Your task to perform on an android device: delete a single message in the gmail app Image 0: 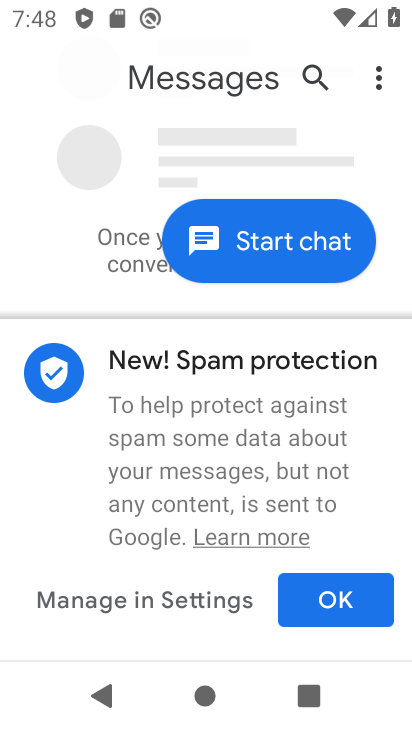
Step 0: press home button
Your task to perform on an android device: delete a single message in the gmail app Image 1: 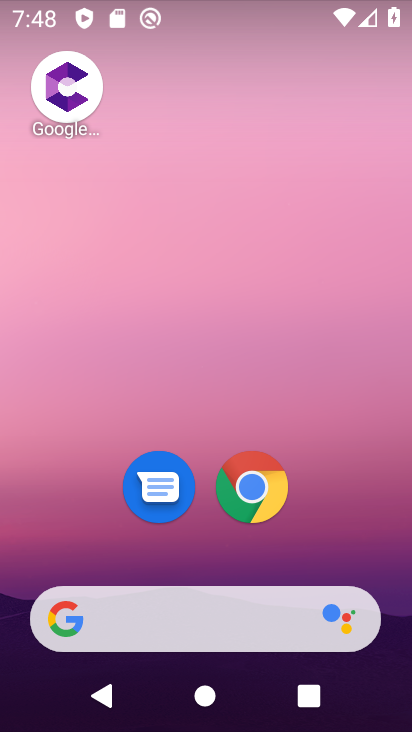
Step 1: drag from (359, 500) to (385, 106)
Your task to perform on an android device: delete a single message in the gmail app Image 2: 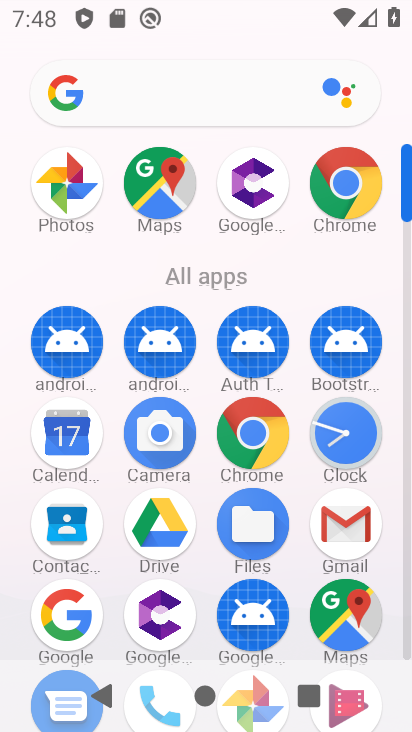
Step 2: click (345, 537)
Your task to perform on an android device: delete a single message in the gmail app Image 3: 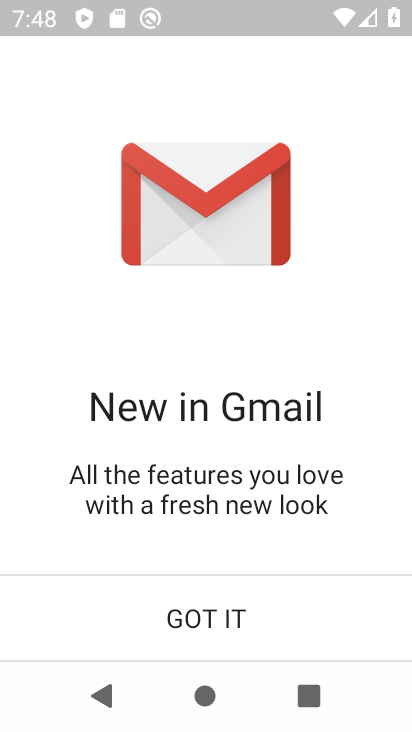
Step 3: click (315, 610)
Your task to perform on an android device: delete a single message in the gmail app Image 4: 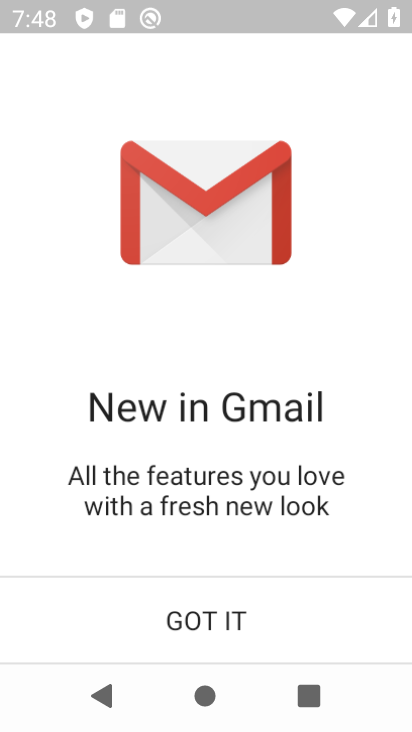
Step 4: click (315, 610)
Your task to perform on an android device: delete a single message in the gmail app Image 5: 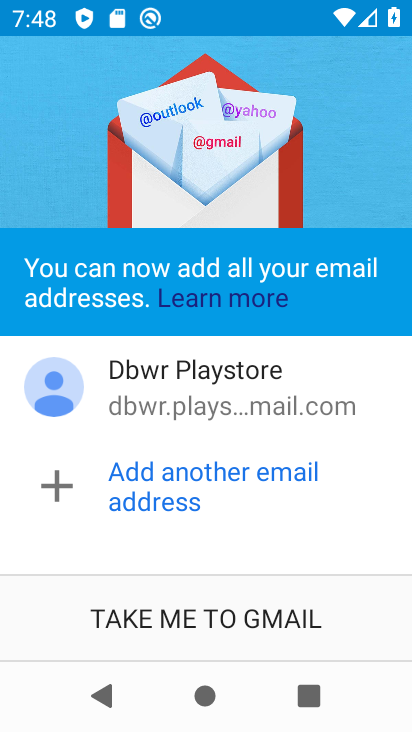
Step 5: click (315, 610)
Your task to perform on an android device: delete a single message in the gmail app Image 6: 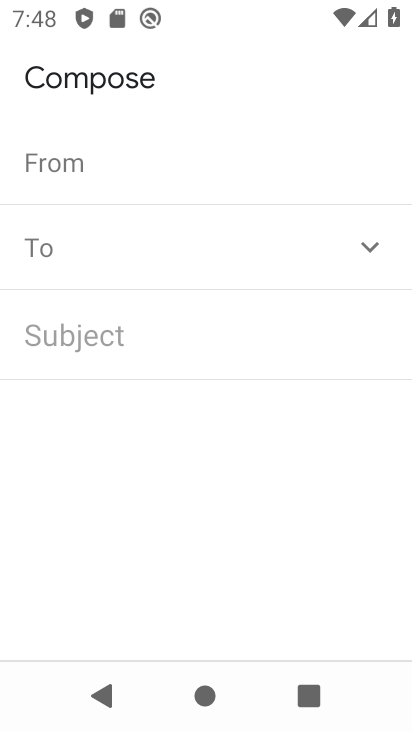
Step 6: click (105, 678)
Your task to perform on an android device: delete a single message in the gmail app Image 7: 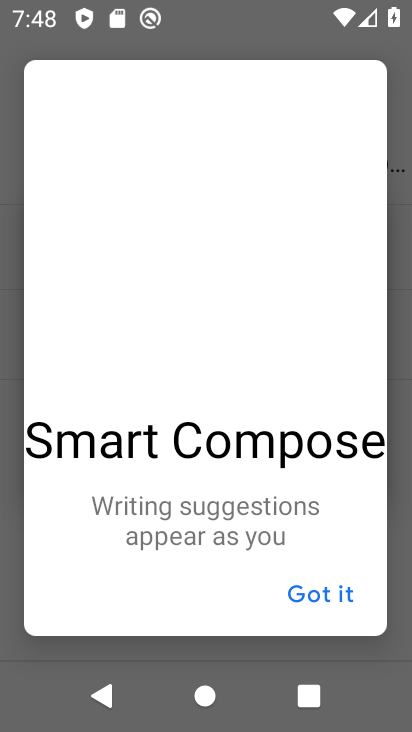
Step 7: click (312, 587)
Your task to perform on an android device: delete a single message in the gmail app Image 8: 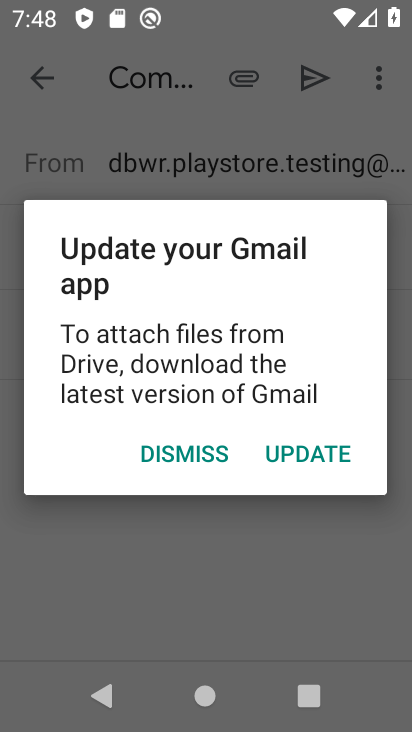
Step 8: click (310, 447)
Your task to perform on an android device: delete a single message in the gmail app Image 9: 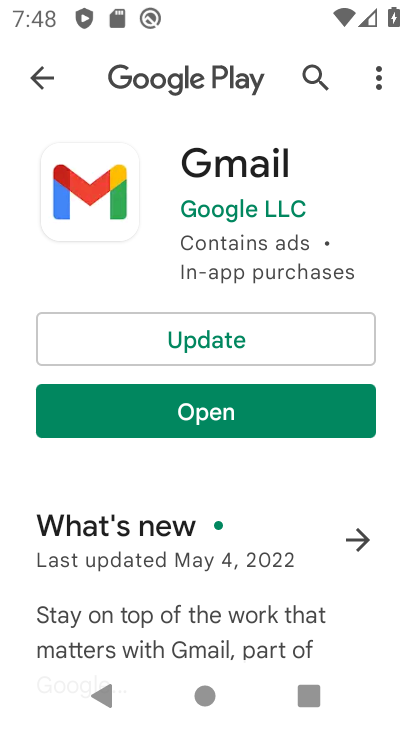
Step 9: click (242, 341)
Your task to perform on an android device: delete a single message in the gmail app Image 10: 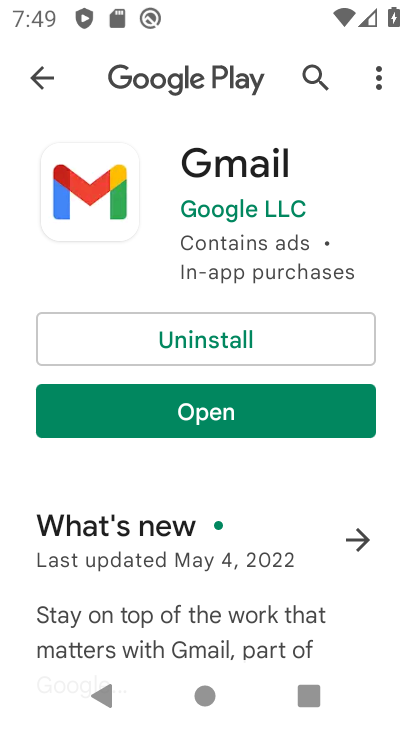
Step 10: click (261, 392)
Your task to perform on an android device: delete a single message in the gmail app Image 11: 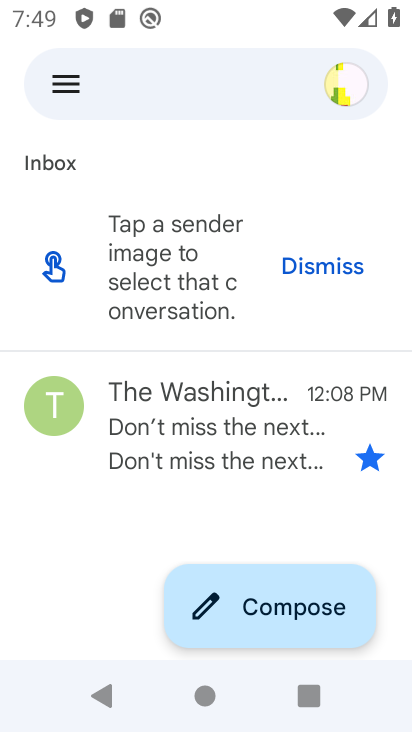
Step 11: click (197, 397)
Your task to perform on an android device: delete a single message in the gmail app Image 12: 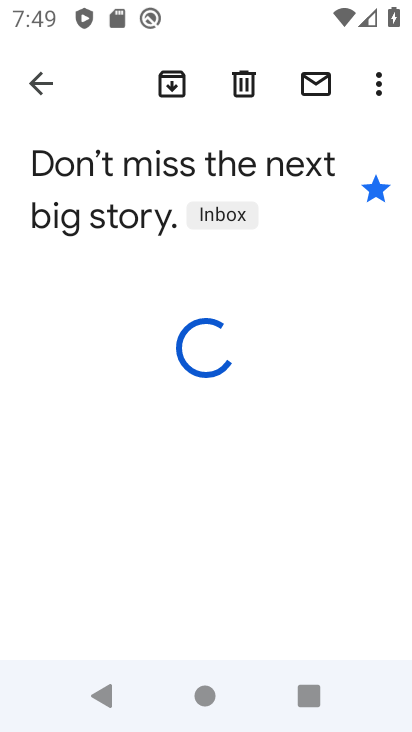
Step 12: click (250, 97)
Your task to perform on an android device: delete a single message in the gmail app Image 13: 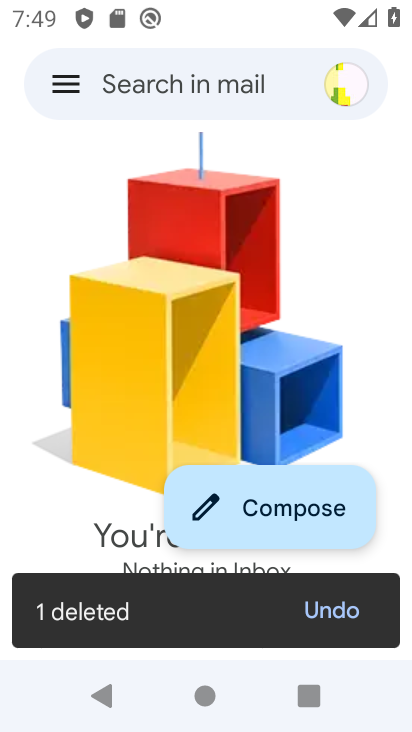
Step 13: task complete